Your task to perform on an android device: Clear all items from cart on bestbuy.com. Search for logitech g910 on bestbuy.com, select the first entry, add it to the cart, then select checkout. Image 0: 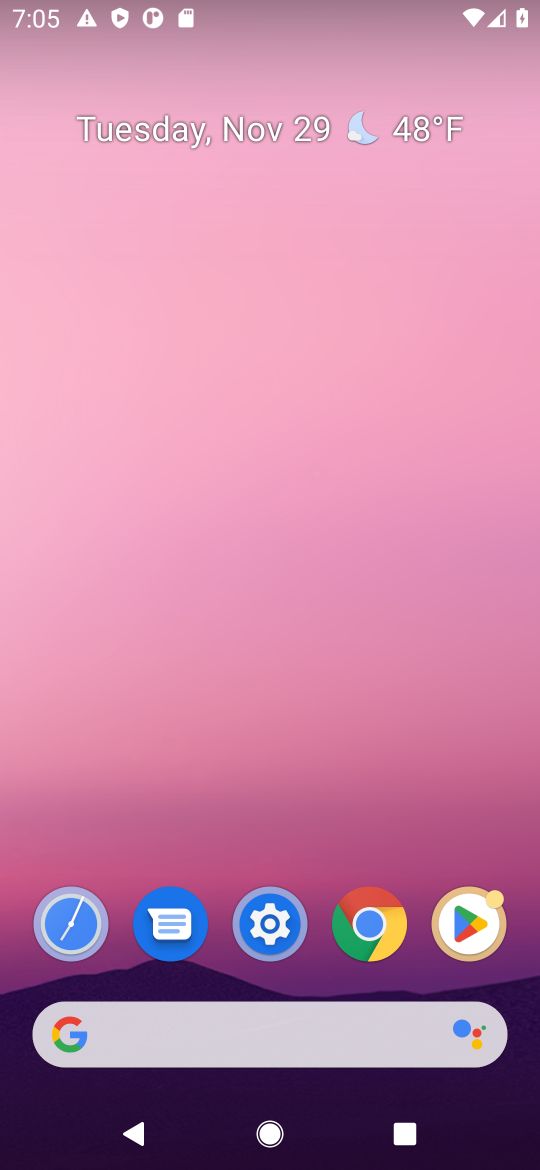
Step 0: click (120, 1044)
Your task to perform on an android device: Clear all items from cart on bestbuy.com. Search for logitech g910 on bestbuy.com, select the first entry, add it to the cart, then select checkout. Image 1: 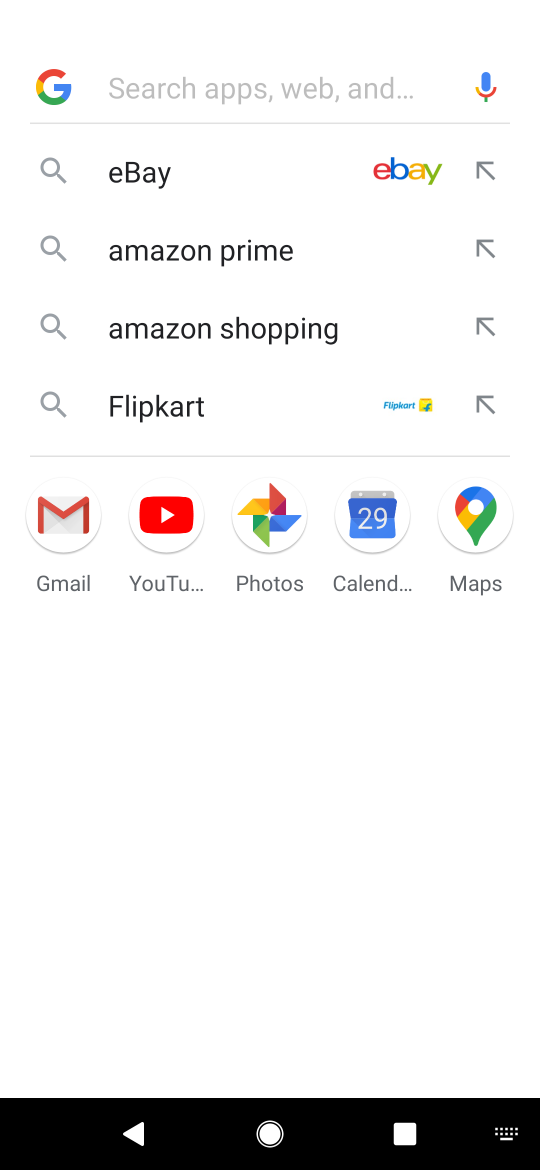
Step 1: type "bestbuy"
Your task to perform on an android device: Clear all items from cart on bestbuy.com. Search for logitech g910 on bestbuy.com, select the first entry, add it to the cart, then select checkout. Image 2: 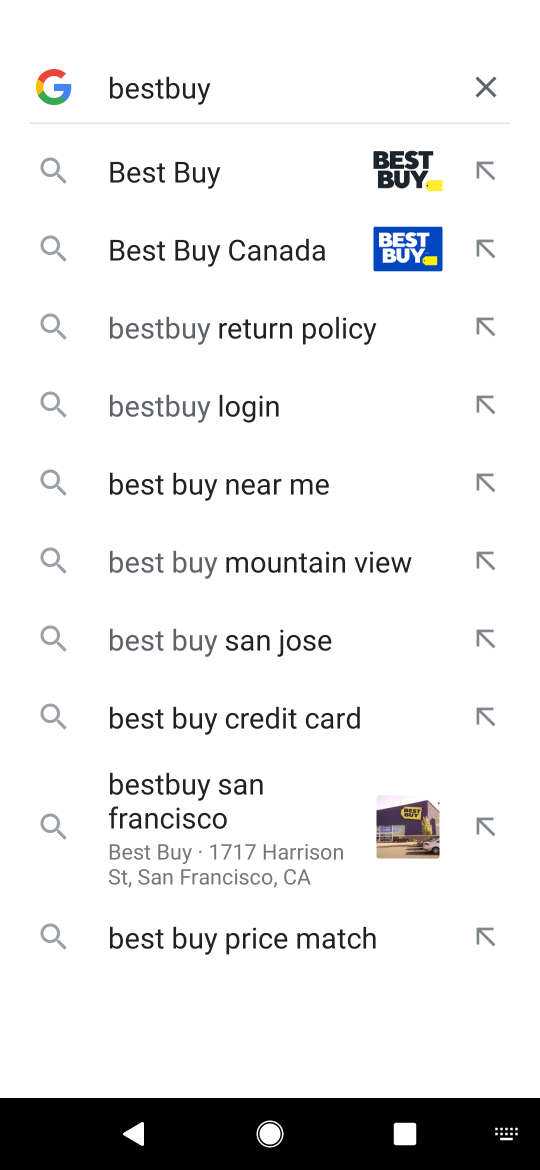
Step 2: click (220, 151)
Your task to perform on an android device: Clear all items from cart on bestbuy.com. Search for logitech g910 on bestbuy.com, select the first entry, add it to the cart, then select checkout. Image 3: 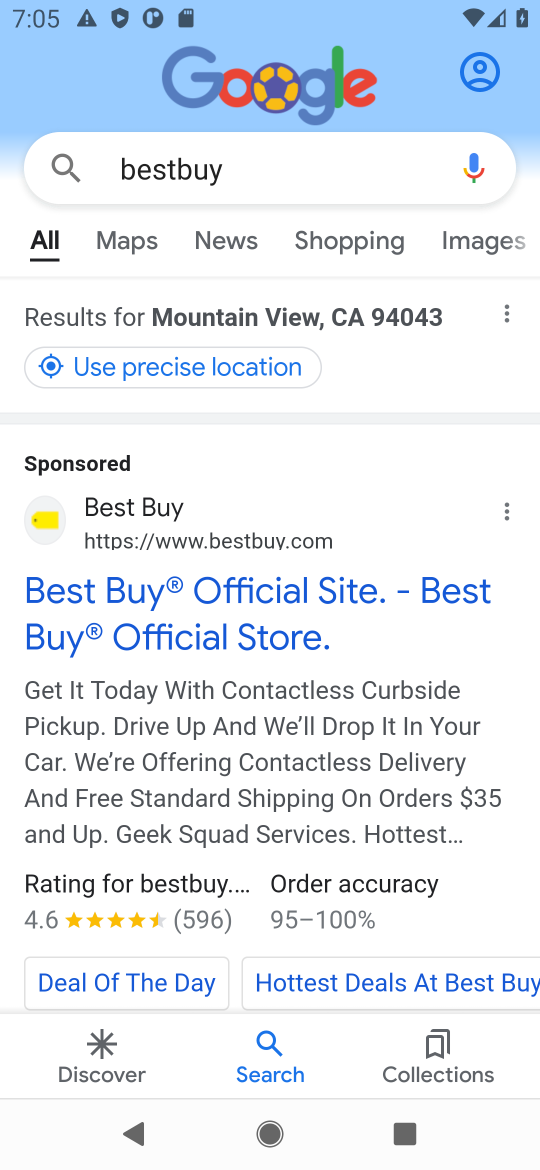
Step 3: click (127, 631)
Your task to perform on an android device: Clear all items from cart on bestbuy.com. Search for logitech g910 on bestbuy.com, select the first entry, add it to the cart, then select checkout. Image 4: 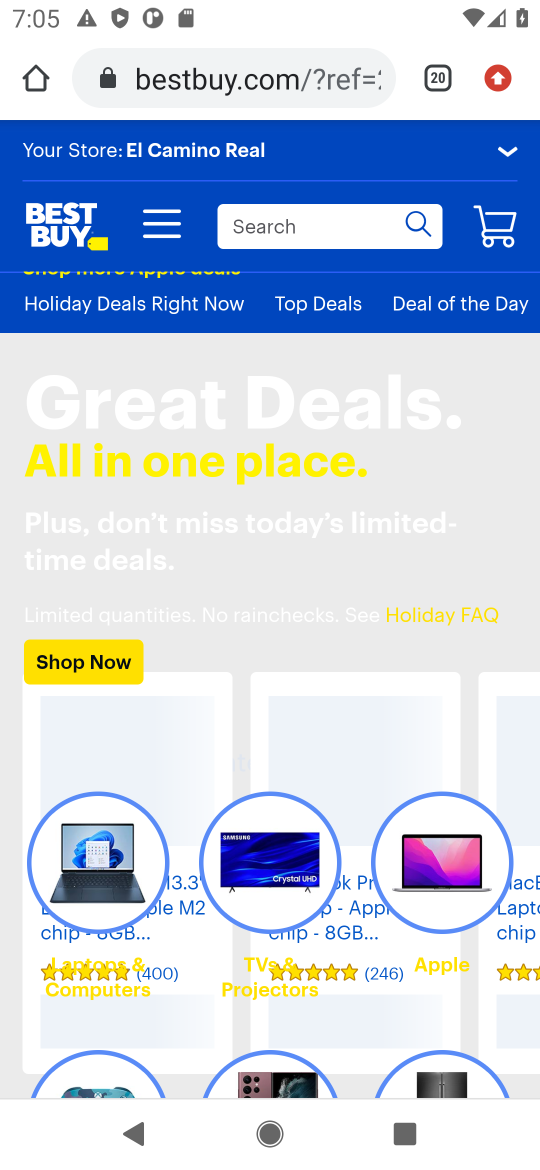
Step 4: click (299, 205)
Your task to perform on an android device: Clear all items from cart on bestbuy.com. Search for logitech g910 on bestbuy.com, select the first entry, add it to the cart, then select checkout. Image 5: 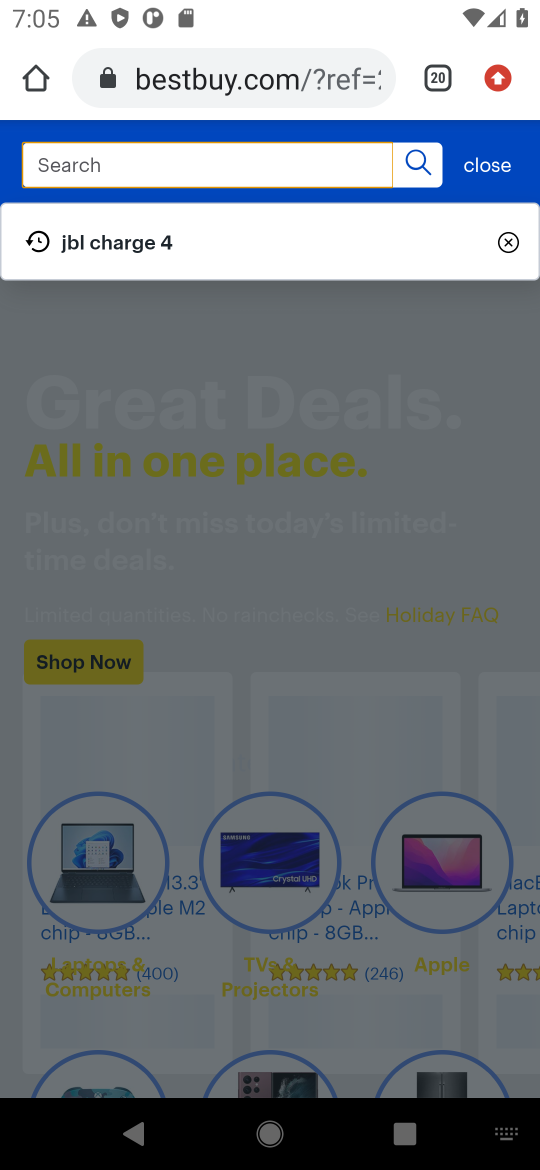
Step 5: type "bestbuy.com"
Your task to perform on an android device: Clear all items from cart on bestbuy.com. Search for logitech g910 on bestbuy.com, select the first entry, add it to the cart, then select checkout. Image 6: 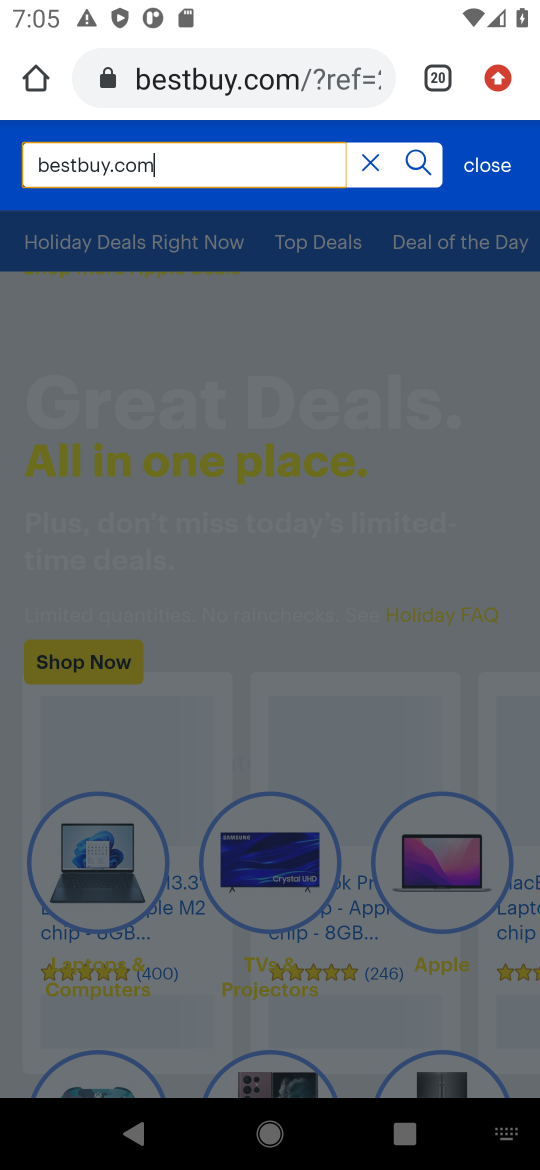
Step 6: click (416, 171)
Your task to perform on an android device: Clear all items from cart on bestbuy.com. Search for logitech g910 on bestbuy.com, select the first entry, add it to the cart, then select checkout. Image 7: 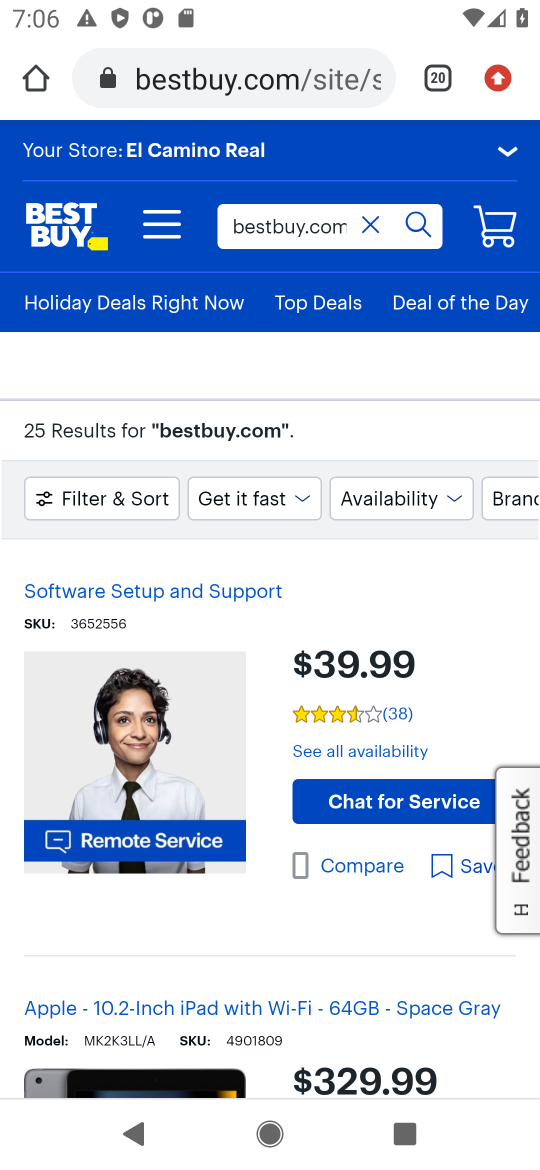
Step 7: click (374, 218)
Your task to perform on an android device: Clear all items from cart on bestbuy.com. Search for logitech g910 on bestbuy.com, select the first entry, add it to the cart, then select checkout. Image 8: 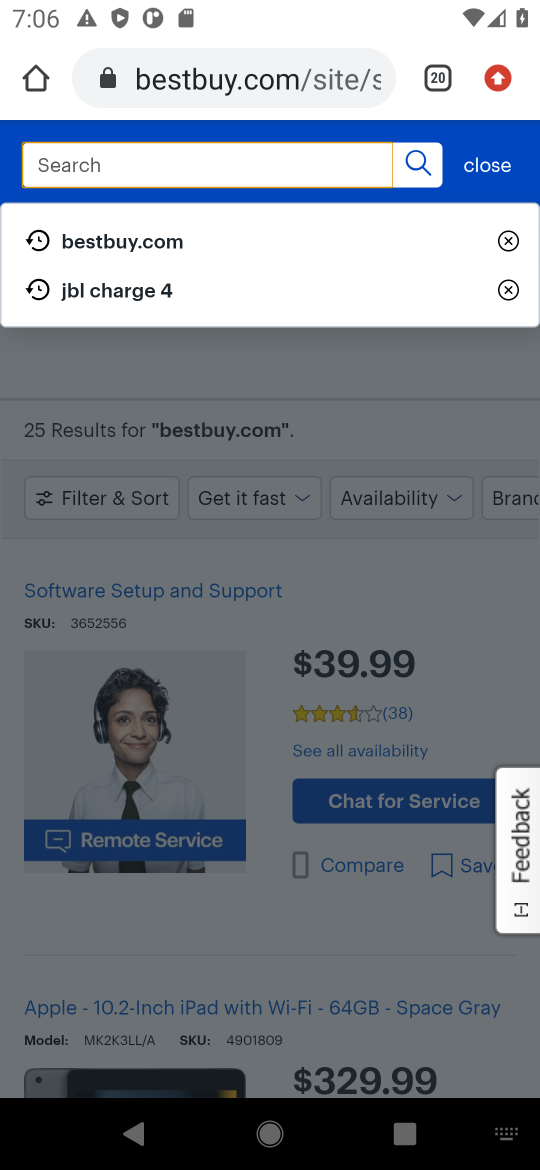
Step 8: type "logitech g910"
Your task to perform on an android device: Clear all items from cart on bestbuy.com. Search for logitech g910 on bestbuy.com, select the first entry, add it to the cart, then select checkout. Image 9: 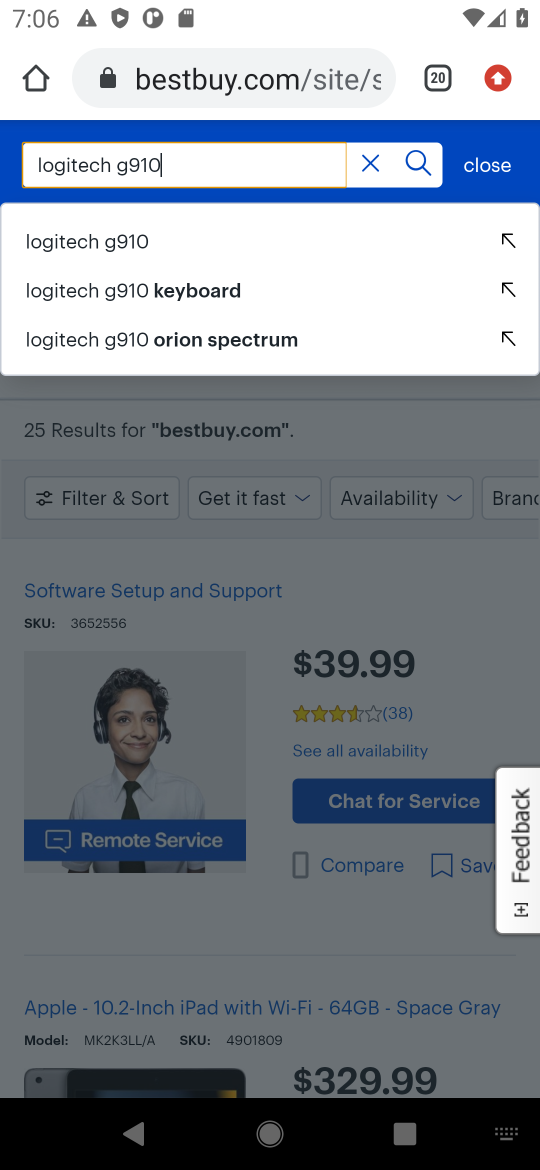
Step 9: click (138, 221)
Your task to perform on an android device: Clear all items from cart on bestbuy.com. Search for logitech g910 on bestbuy.com, select the first entry, add it to the cart, then select checkout. Image 10: 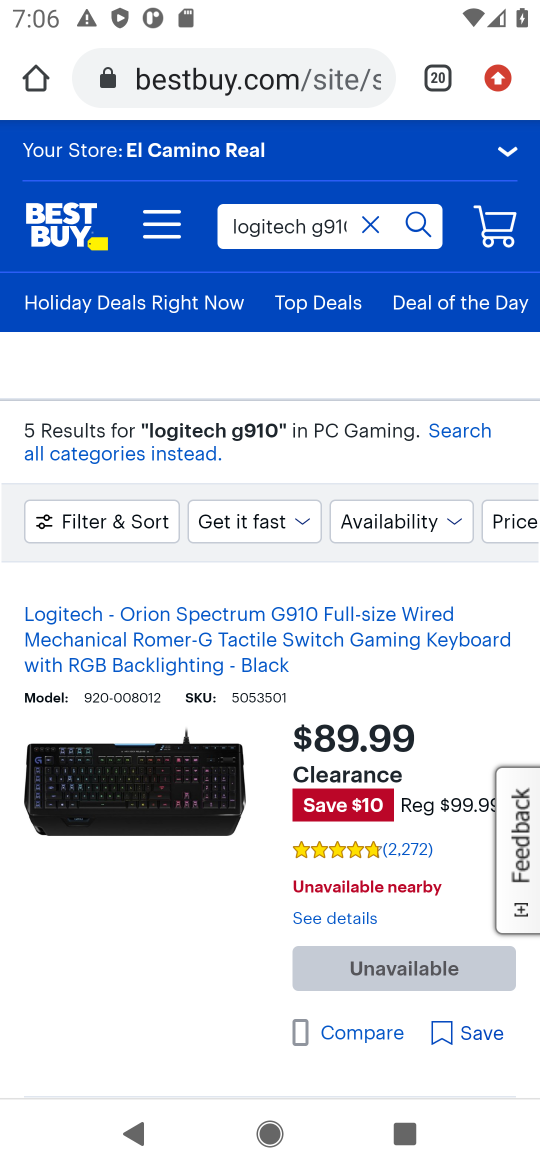
Step 10: click (326, 762)
Your task to perform on an android device: Clear all items from cart on bestbuy.com. Search for logitech g910 on bestbuy.com, select the first entry, add it to the cart, then select checkout. Image 11: 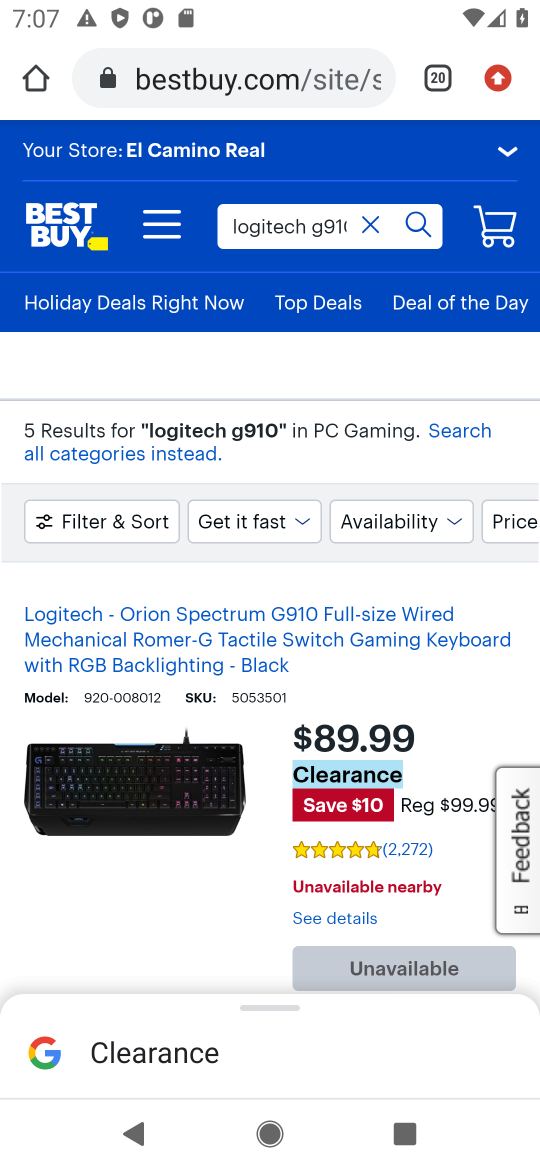
Step 11: task complete